Your task to perform on an android device: What's the news in Barbados? Image 0: 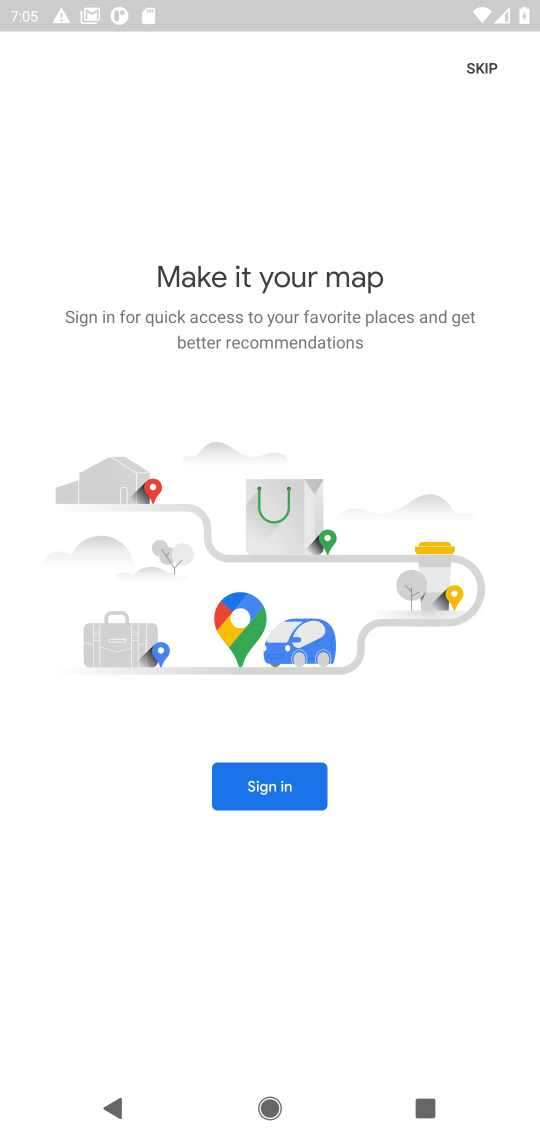
Step 0: press home button
Your task to perform on an android device: What's the news in Barbados? Image 1: 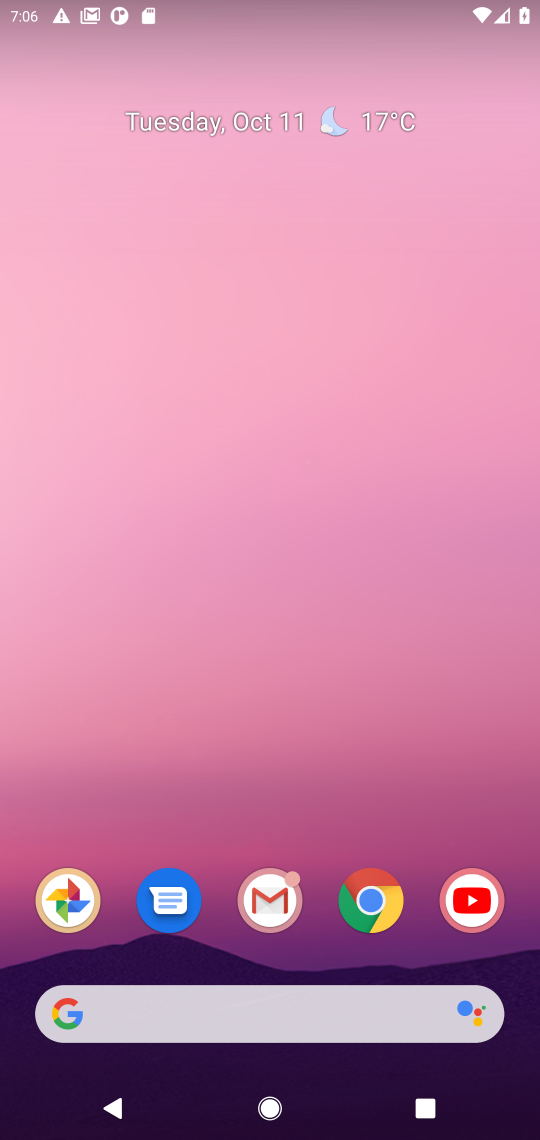
Step 1: click (365, 913)
Your task to perform on an android device: What's the news in Barbados? Image 2: 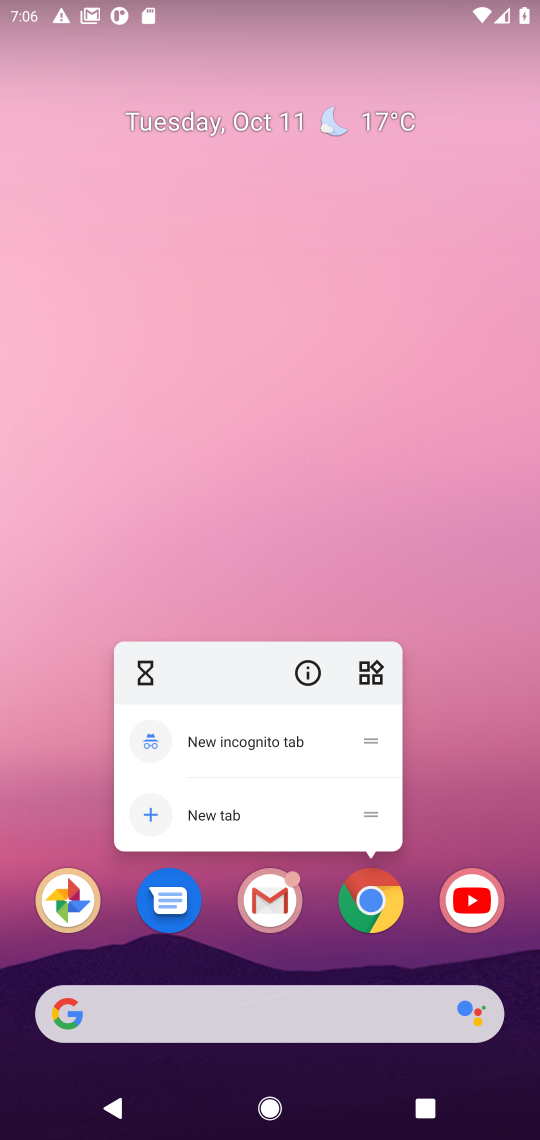
Step 2: click (368, 898)
Your task to perform on an android device: What's the news in Barbados? Image 3: 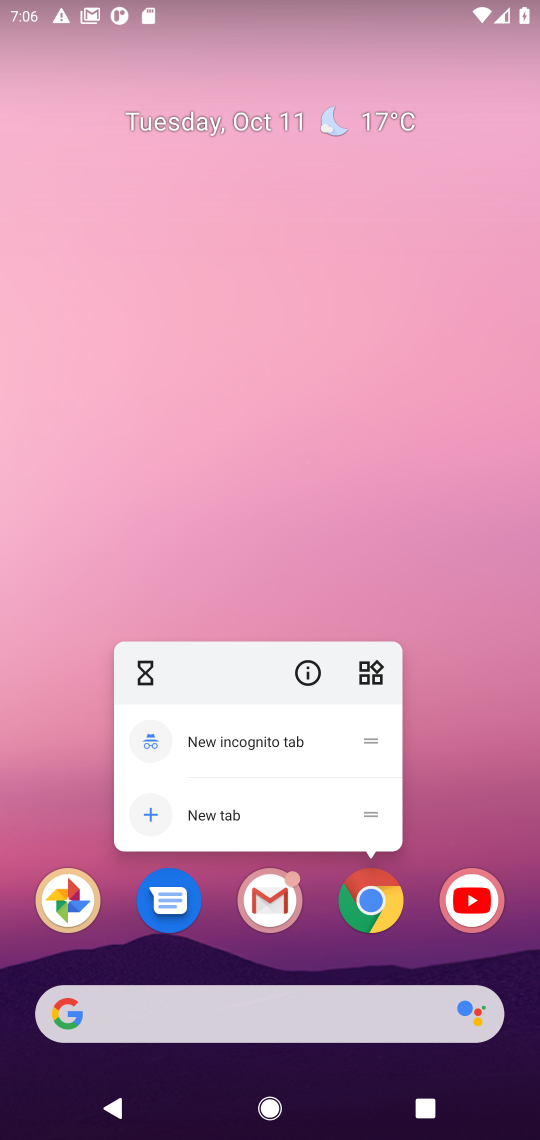
Step 3: click (371, 908)
Your task to perform on an android device: What's the news in Barbados? Image 4: 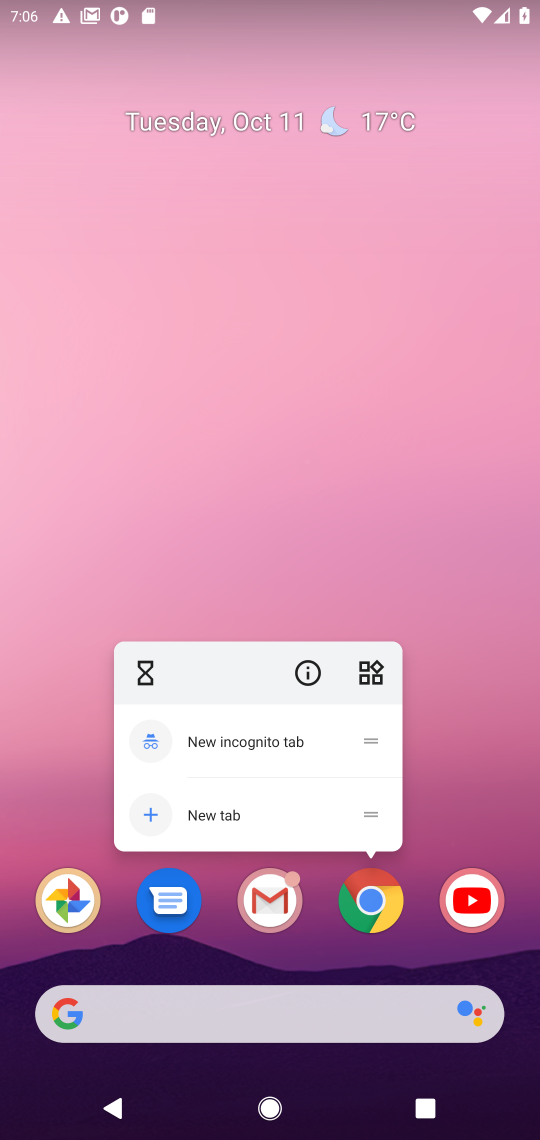
Step 4: click (371, 913)
Your task to perform on an android device: What's the news in Barbados? Image 5: 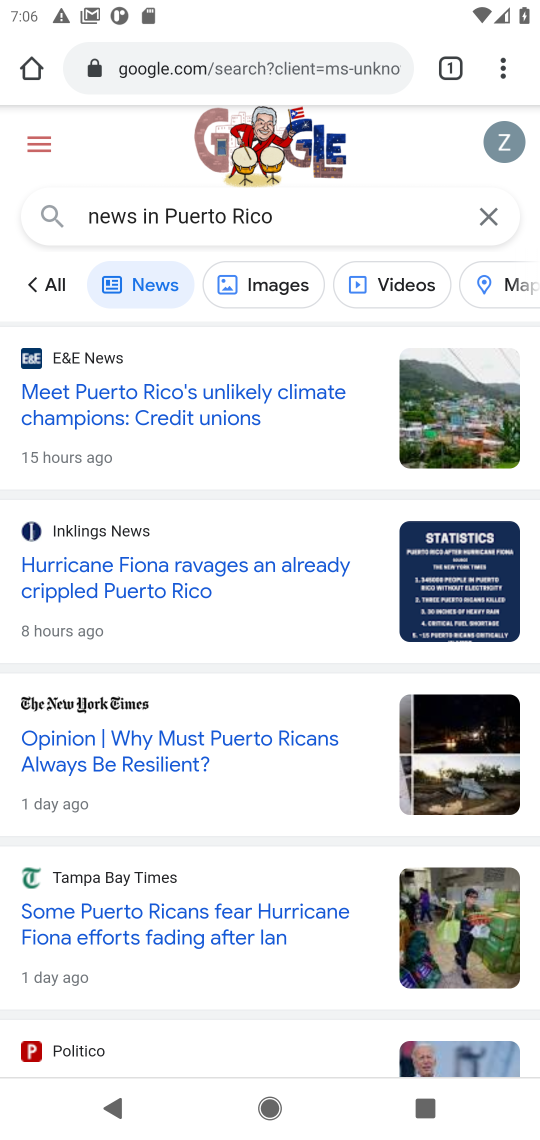
Step 5: click (299, 68)
Your task to perform on an android device: What's the news in Barbados? Image 6: 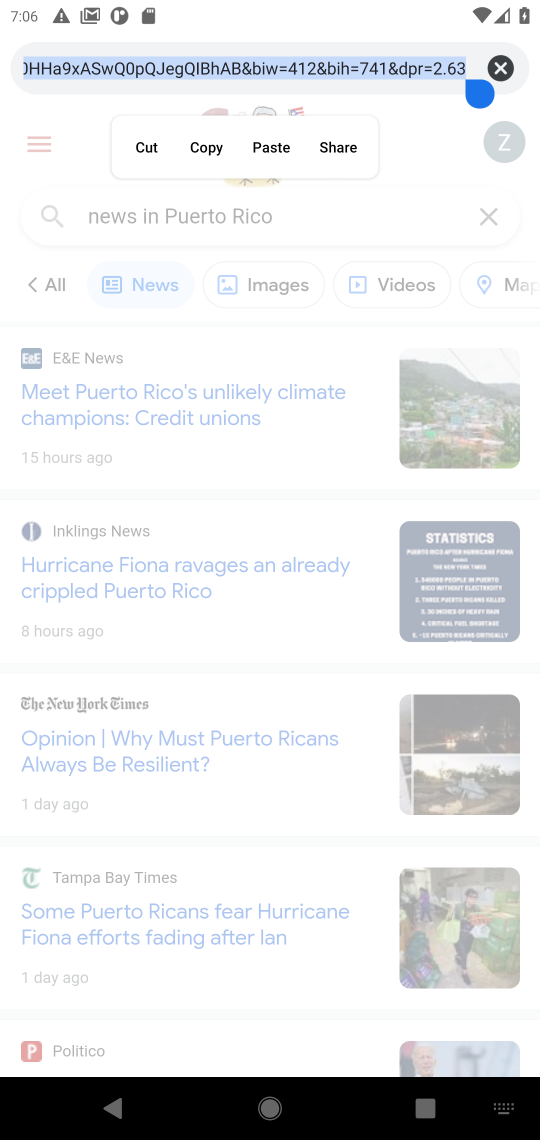
Step 6: click (506, 65)
Your task to perform on an android device: What's the news in Barbados? Image 7: 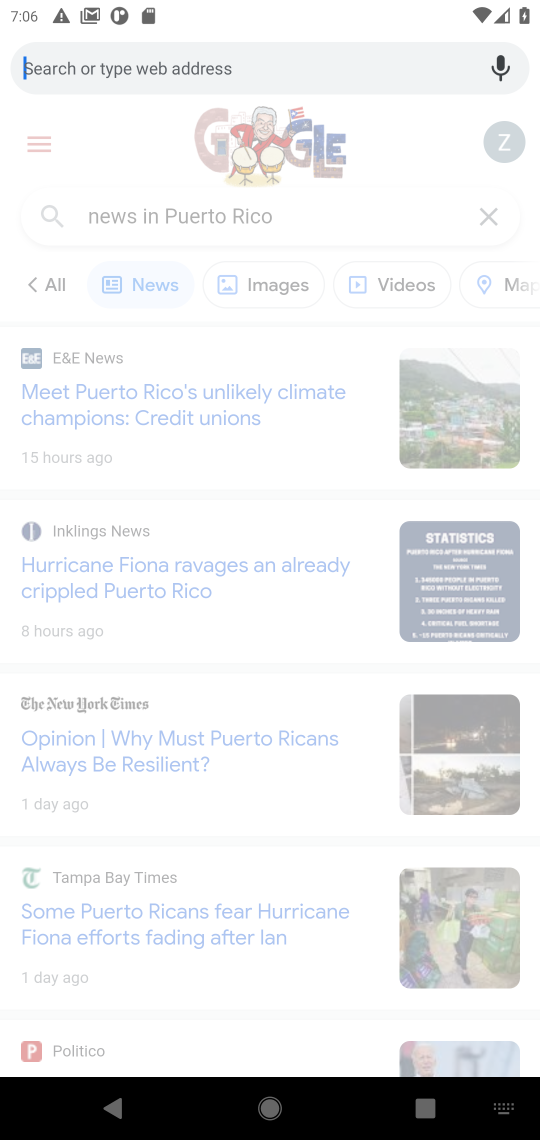
Step 7: type "news in Barbados"
Your task to perform on an android device: What's the news in Barbados? Image 8: 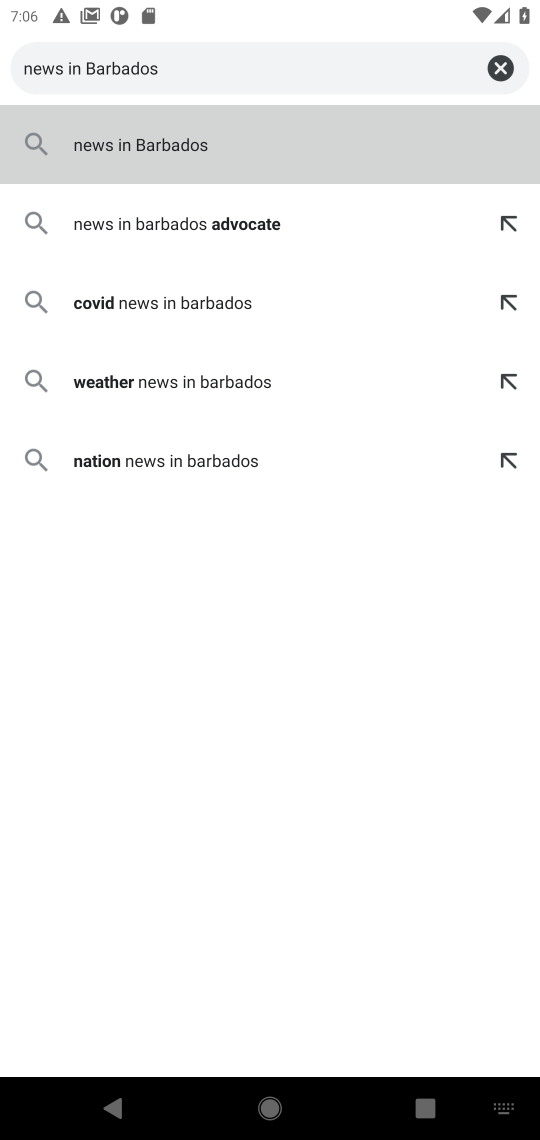
Step 8: press enter
Your task to perform on an android device: What's the news in Barbados? Image 9: 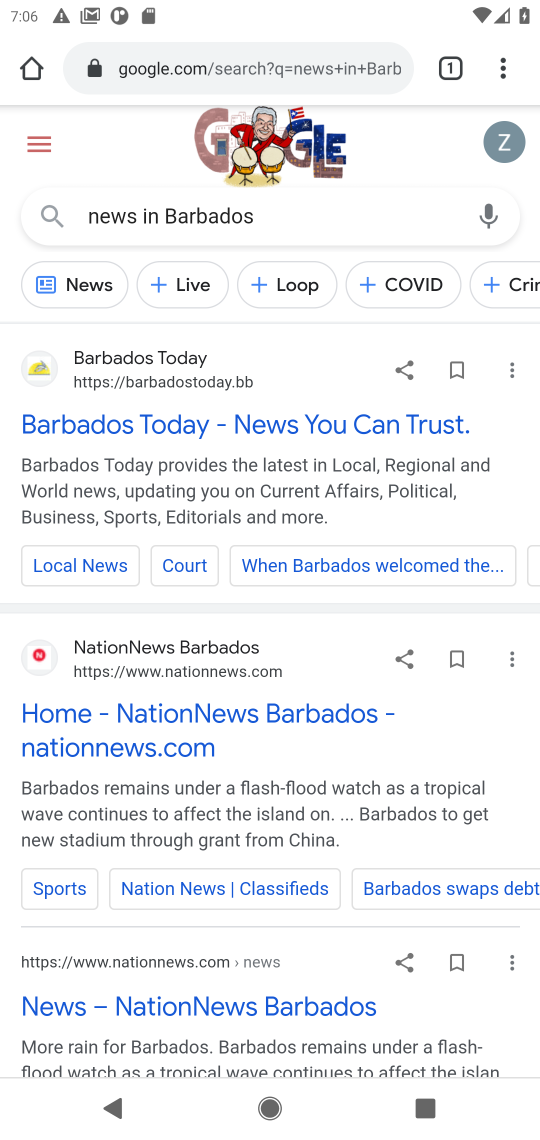
Step 9: click (96, 284)
Your task to perform on an android device: What's the news in Barbados? Image 10: 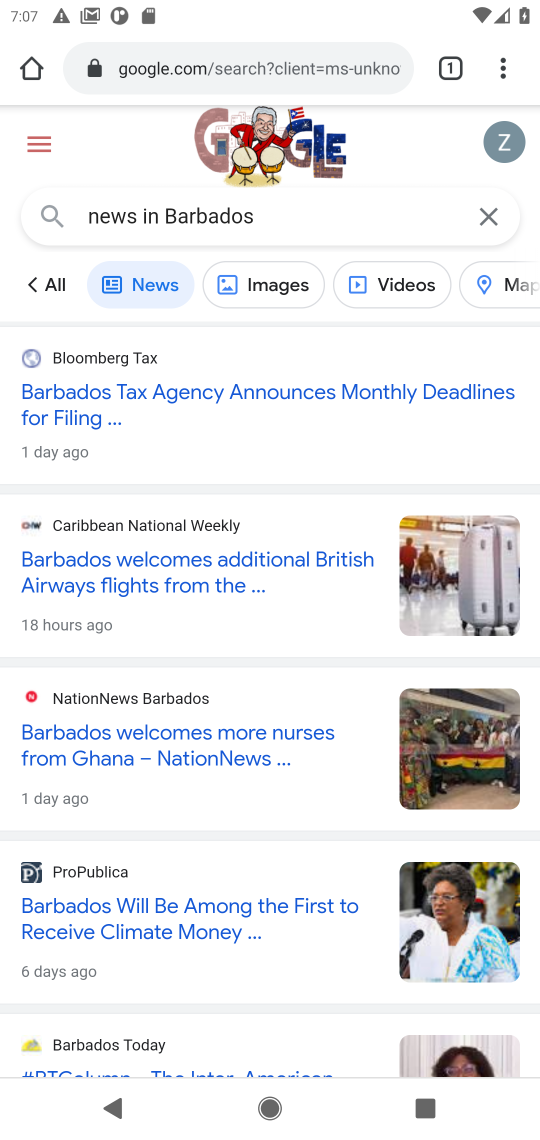
Step 10: task complete